Your task to perform on an android device: toggle show notifications on the lock screen Image 0: 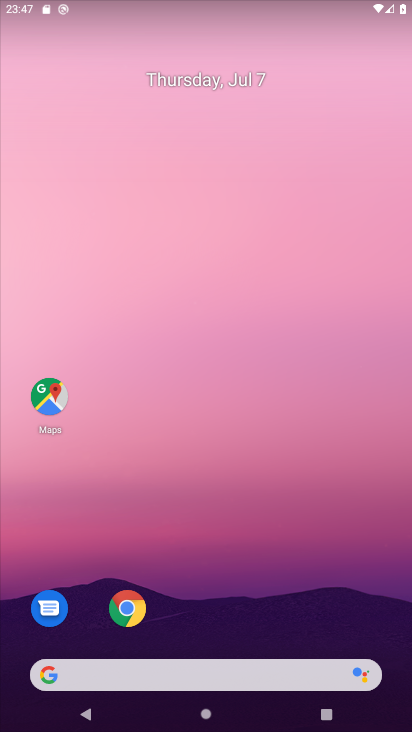
Step 0: click (236, 193)
Your task to perform on an android device: toggle show notifications on the lock screen Image 1: 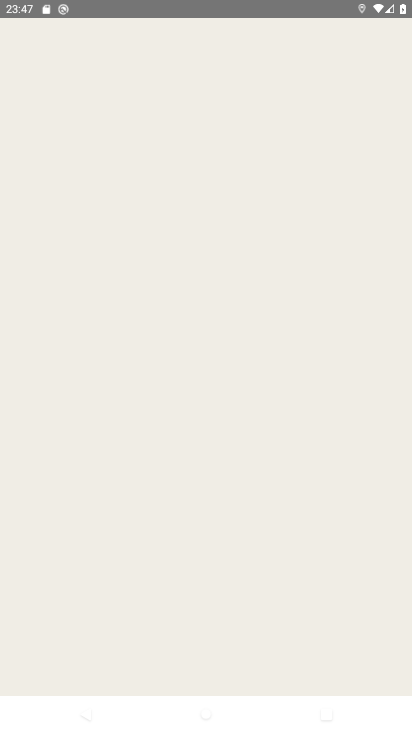
Step 1: drag from (174, 637) to (158, 126)
Your task to perform on an android device: toggle show notifications on the lock screen Image 2: 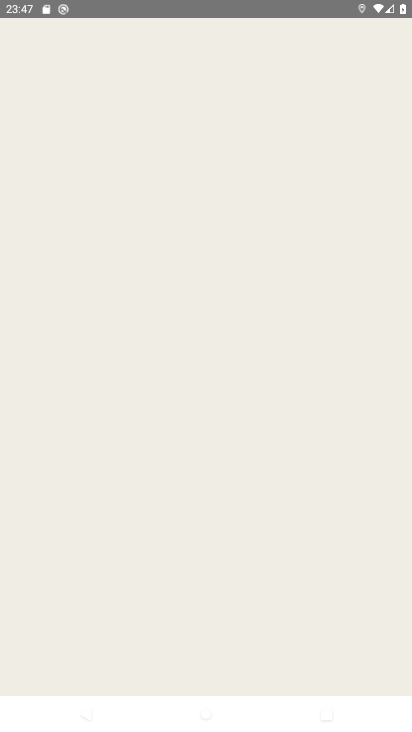
Step 2: press home button
Your task to perform on an android device: toggle show notifications on the lock screen Image 3: 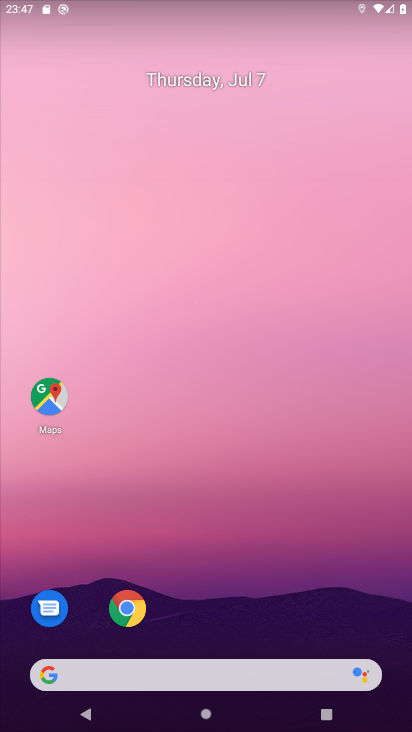
Step 3: drag from (192, 679) to (235, 86)
Your task to perform on an android device: toggle show notifications on the lock screen Image 4: 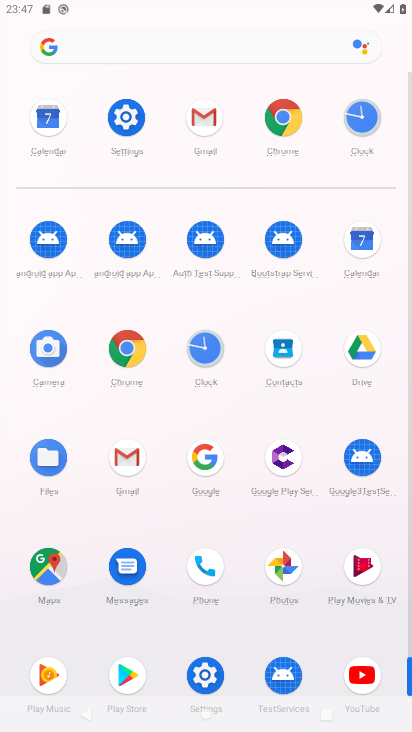
Step 4: click (126, 116)
Your task to perform on an android device: toggle show notifications on the lock screen Image 5: 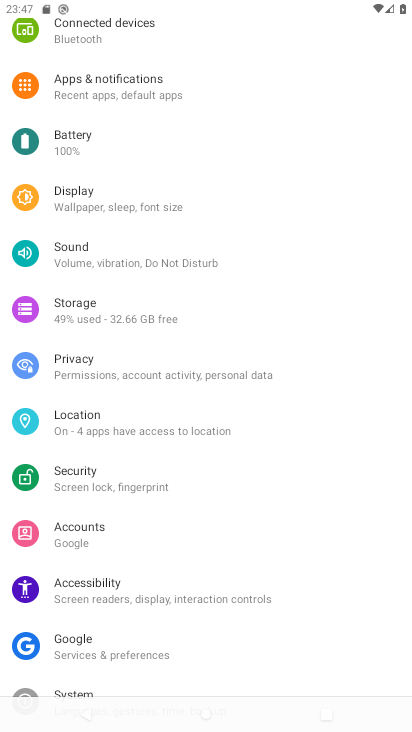
Step 5: click (104, 59)
Your task to perform on an android device: toggle show notifications on the lock screen Image 6: 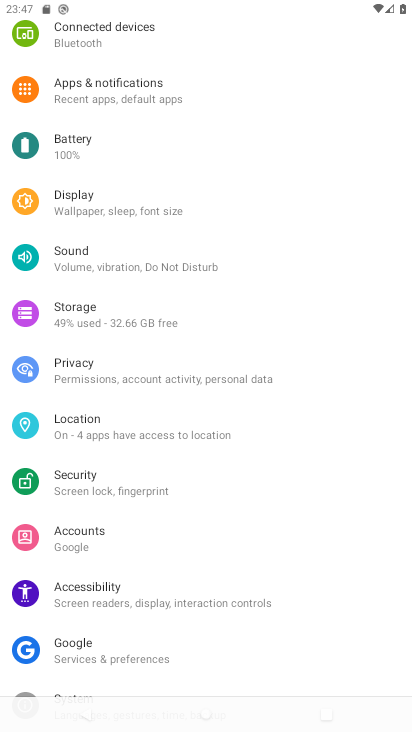
Step 6: click (106, 91)
Your task to perform on an android device: toggle show notifications on the lock screen Image 7: 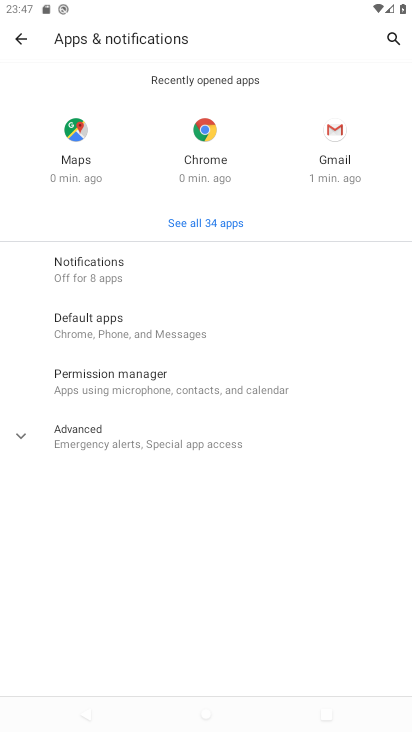
Step 7: click (118, 276)
Your task to perform on an android device: toggle show notifications on the lock screen Image 8: 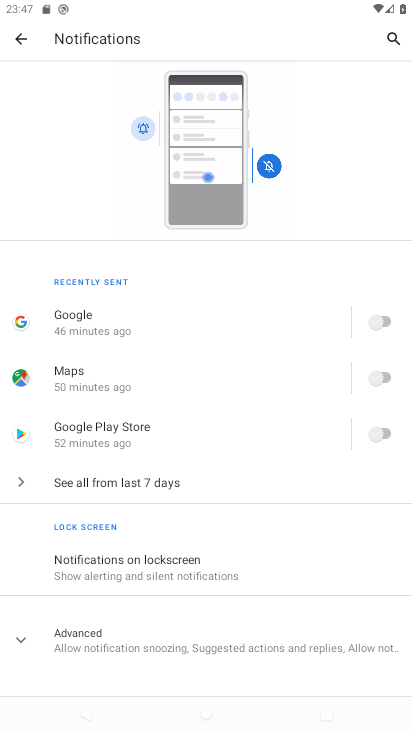
Step 8: click (188, 569)
Your task to perform on an android device: toggle show notifications on the lock screen Image 9: 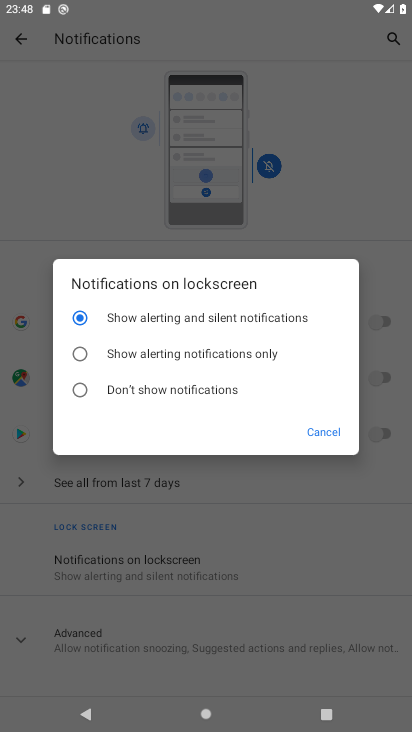
Step 9: click (130, 392)
Your task to perform on an android device: toggle show notifications on the lock screen Image 10: 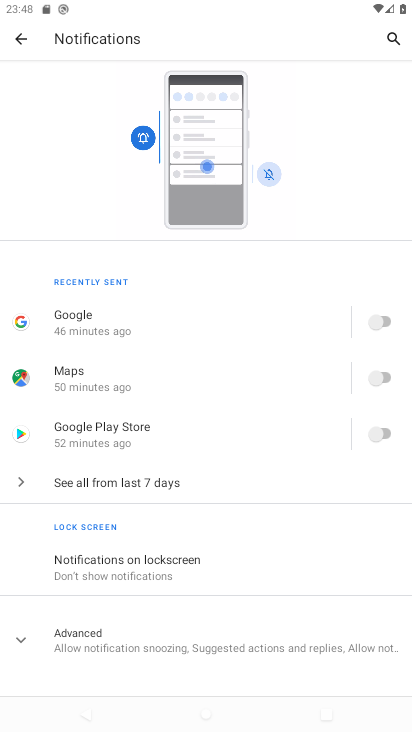
Step 10: task complete